Your task to perform on an android device: Open eBay Image 0: 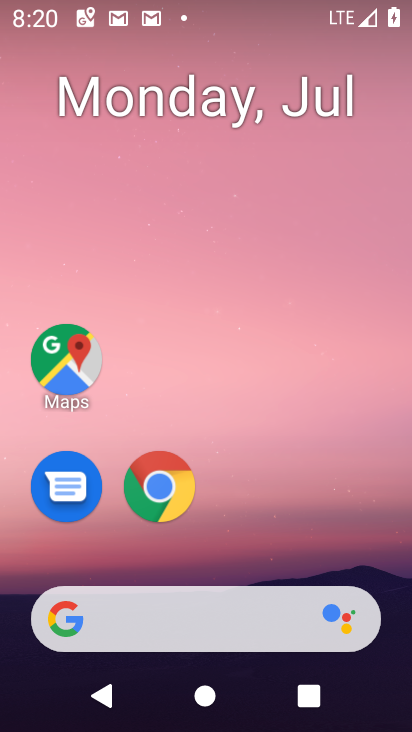
Step 0: drag from (380, 563) to (369, 133)
Your task to perform on an android device: Open eBay Image 1: 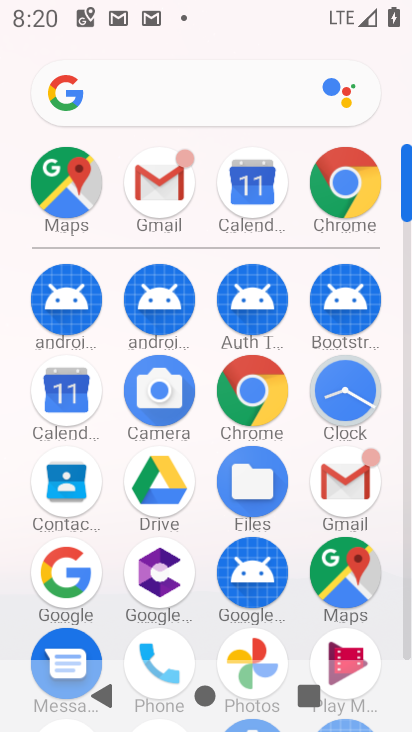
Step 1: click (263, 397)
Your task to perform on an android device: Open eBay Image 2: 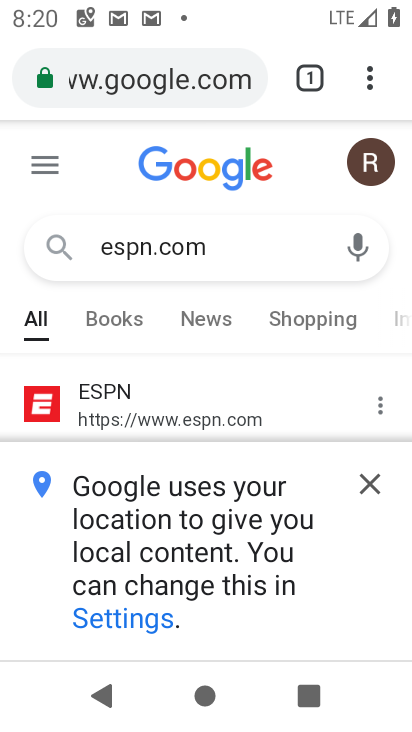
Step 2: click (201, 90)
Your task to perform on an android device: Open eBay Image 3: 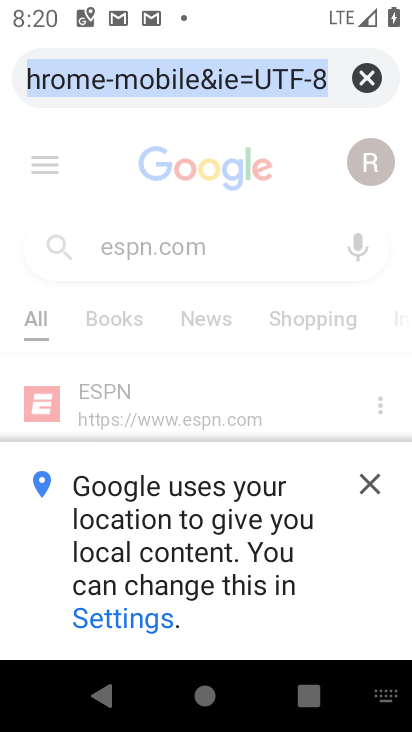
Step 3: type "ebay"
Your task to perform on an android device: Open eBay Image 4: 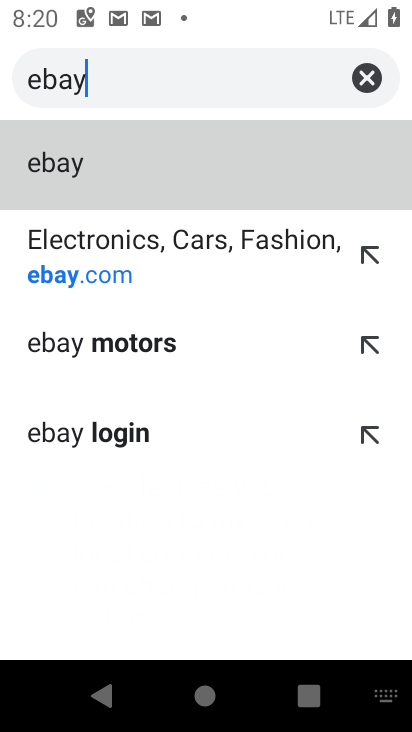
Step 4: click (261, 172)
Your task to perform on an android device: Open eBay Image 5: 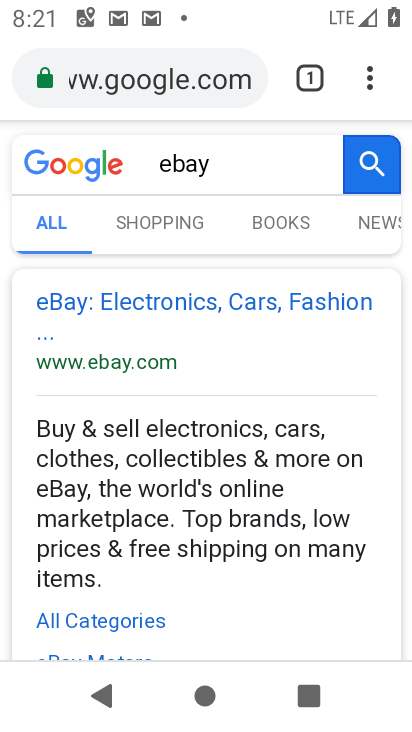
Step 5: task complete